Your task to perform on an android device: Open settings on Google Maps Image 0: 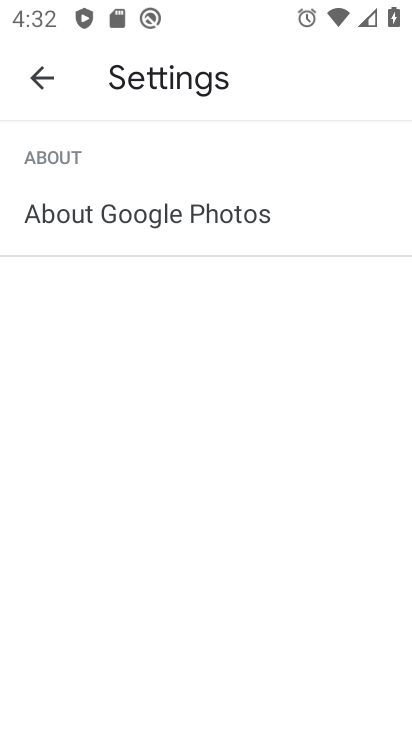
Step 0: press home button
Your task to perform on an android device: Open settings on Google Maps Image 1: 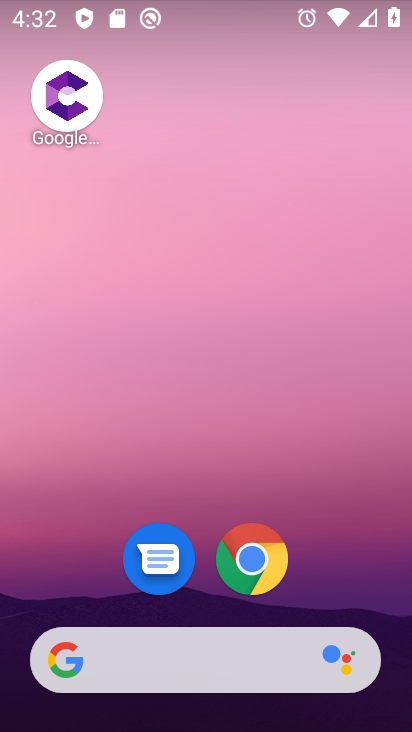
Step 1: drag from (370, 566) to (270, 8)
Your task to perform on an android device: Open settings on Google Maps Image 2: 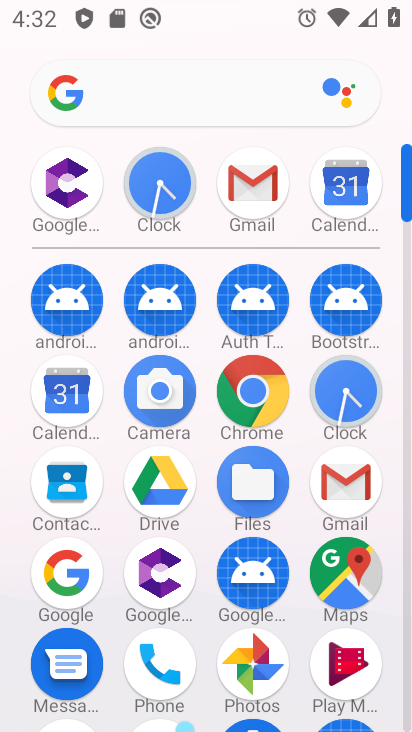
Step 2: click (342, 559)
Your task to perform on an android device: Open settings on Google Maps Image 3: 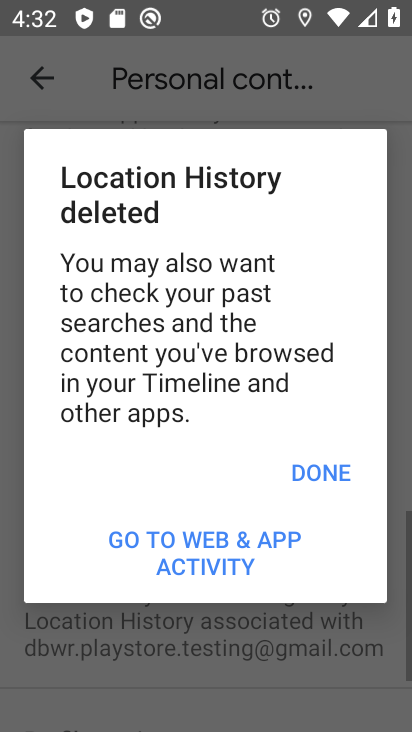
Step 3: press back button
Your task to perform on an android device: Open settings on Google Maps Image 4: 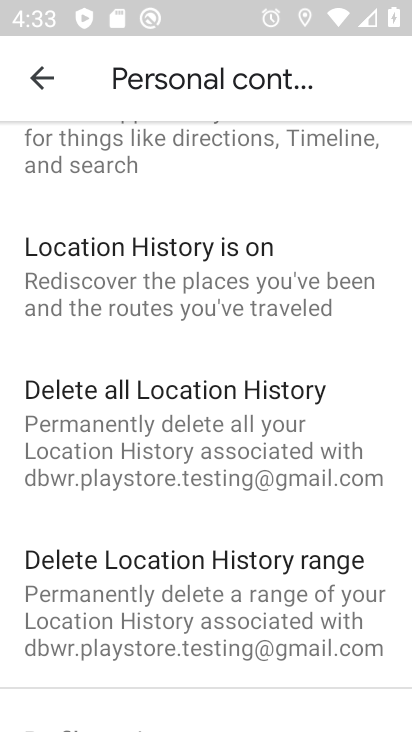
Step 4: press back button
Your task to perform on an android device: Open settings on Google Maps Image 5: 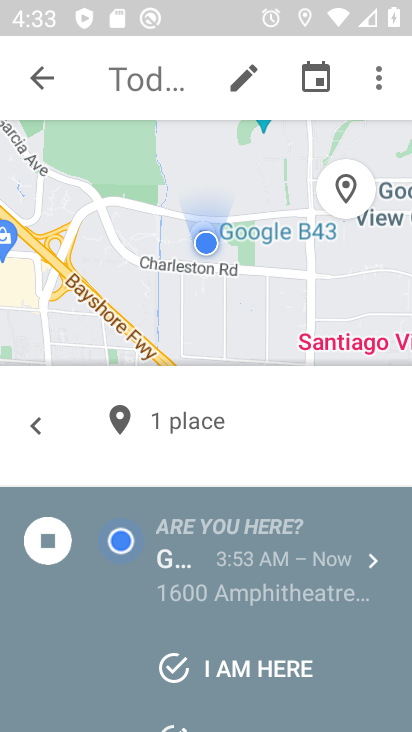
Step 5: click (47, 67)
Your task to perform on an android device: Open settings on Google Maps Image 6: 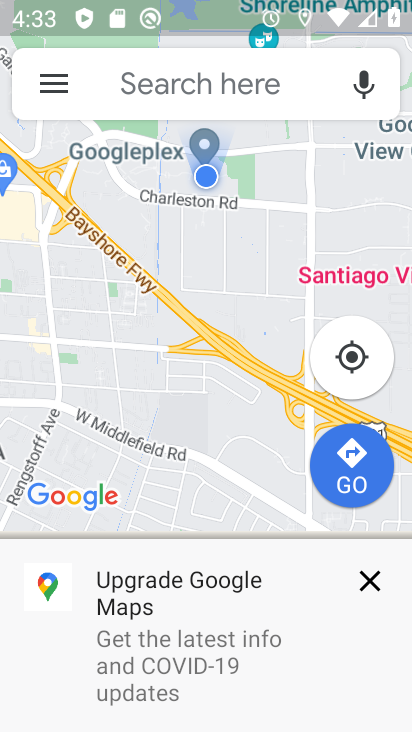
Step 6: click (42, 72)
Your task to perform on an android device: Open settings on Google Maps Image 7: 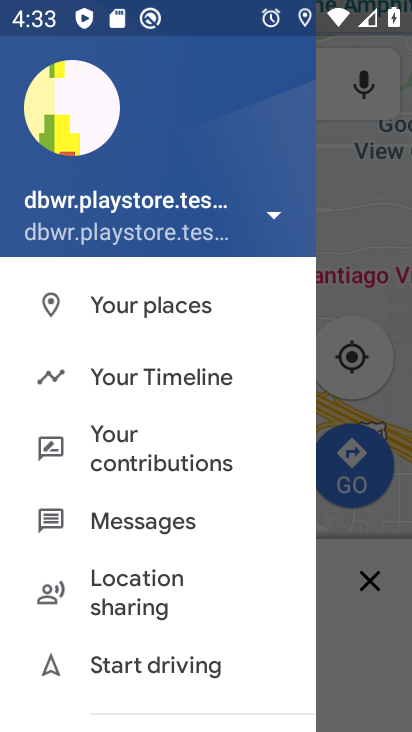
Step 7: drag from (200, 625) to (222, 187)
Your task to perform on an android device: Open settings on Google Maps Image 8: 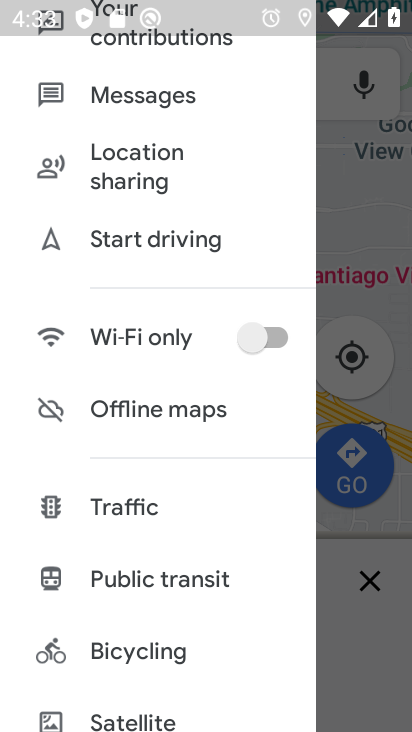
Step 8: drag from (197, 218) to (224, 85)
Your task to perform on an android device: Open settings on Google Maps Image 9: 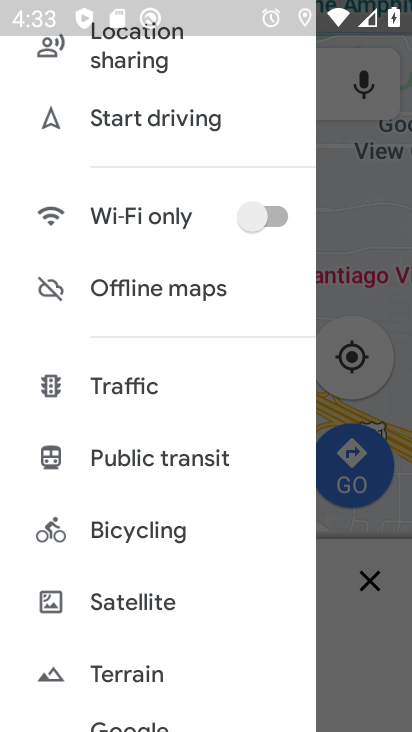
Step 9: drag from (138, 673) to (156, 195)
Your task to perform on an android device: Open settings on Google Maps Image 10: 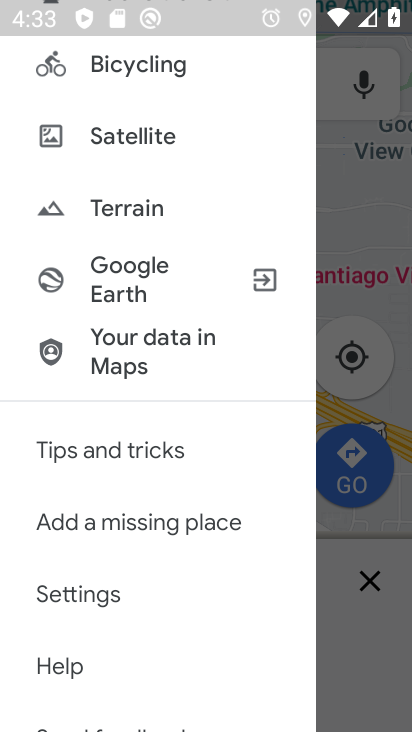
Step 10: click (89, 600)
Your task to perform on an android device: Open settings on Google Maps Image 11: 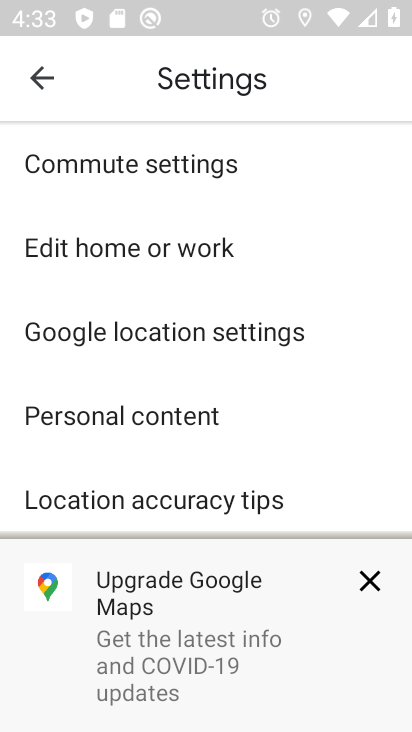
Step 11: task complete